Your task to perform on an android device: open sync settings in chrome Image 0: 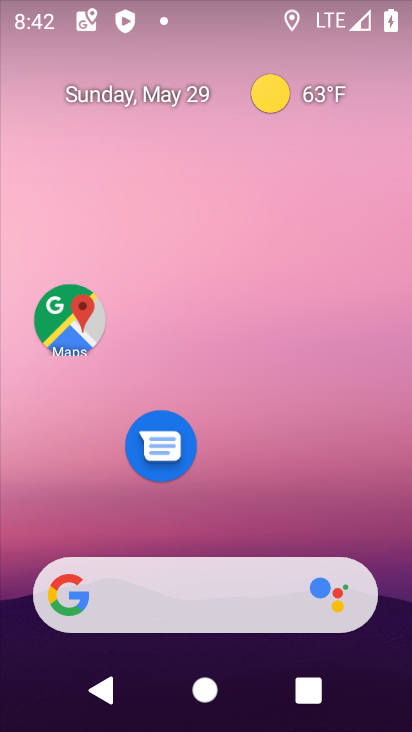
Step 0: drag from (224, 512) to (243, 178)
Your task to perform on an android device: open sync settings in chrome Image 1: 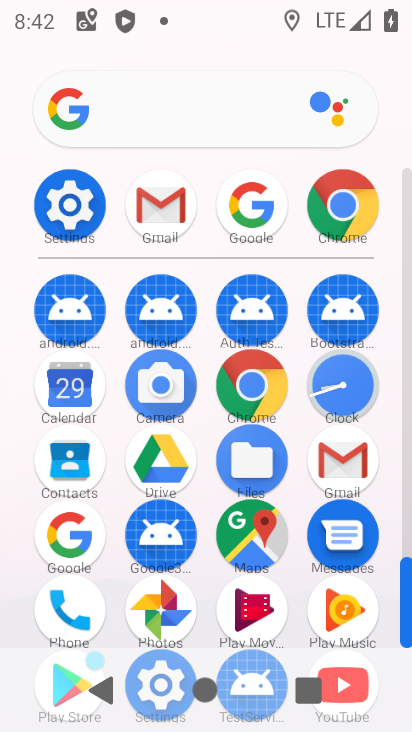
Step 1: click (368, 199)
Your task to perform on an android device: open sync settings in chrome Image 2: 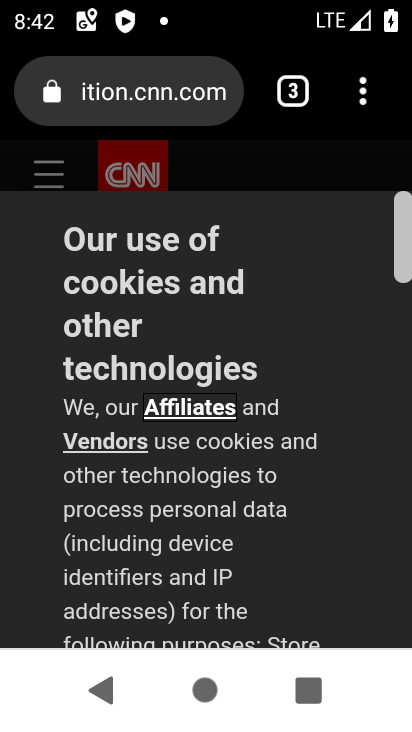
Step 2: click (360, 92)
Your task to perform on an android device: open sync settings in chrome Image 3: 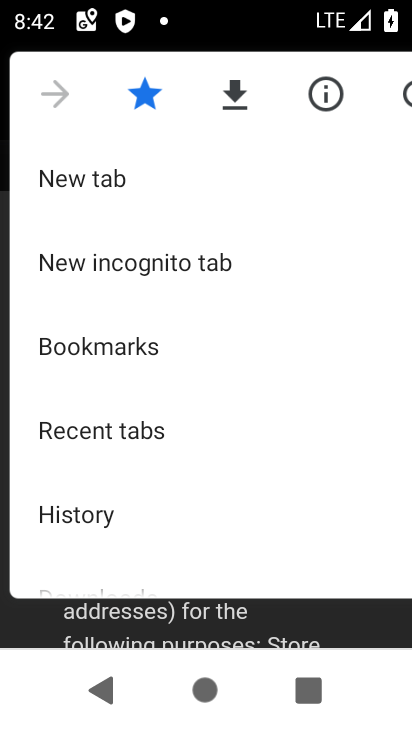
Step 3: drag from (162, 523) to (115, 316)
Your task to perform on an android device: open sync settings in chrome Image 4: 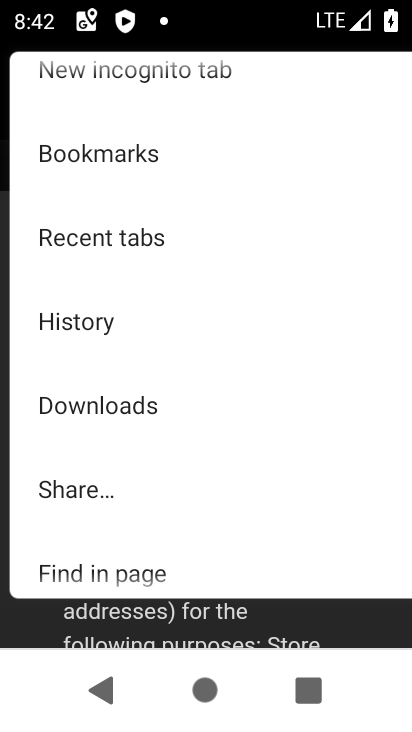
Step 4: drag from (122, 531) to (147, 284)
Your task to perform on an android device: open sync settings in chrome Image 5: 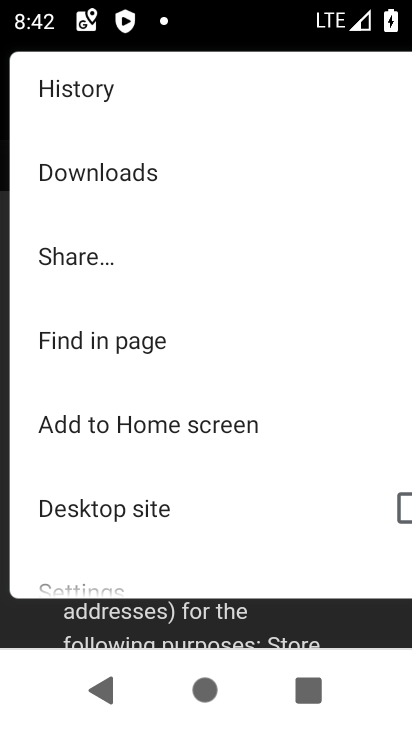
Step 5: drag from (131, 510) to (130, 315)
Your task to perform on an android device: open sync settings in chrome Image 6: 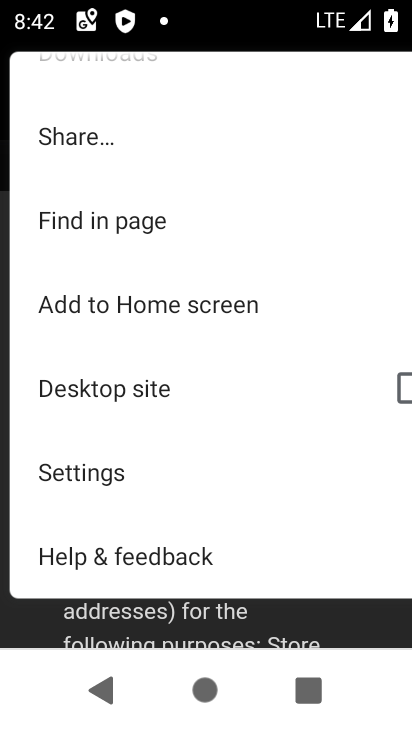
Step 6: click (107, 466)
Your task to perform on an android device: open sync settings in chrome Image 7: 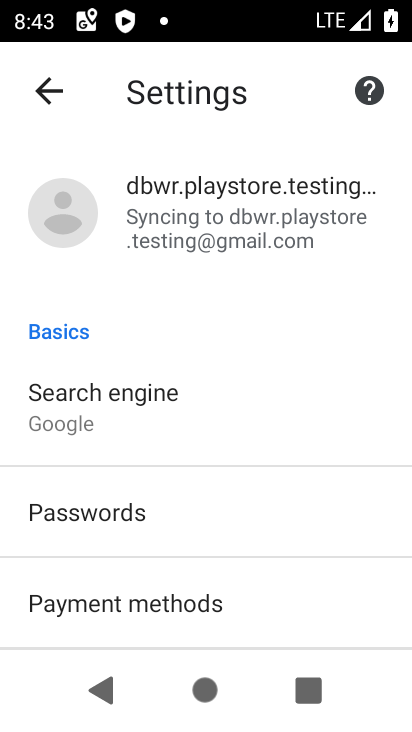
Step 7: click (153, 243)
Your task to perform on an android device: open sync settings in chrome Image 8: 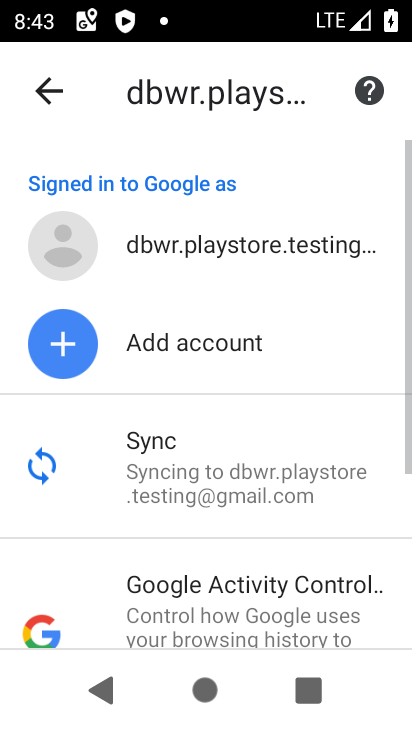
Step 8: click (179, 395)
Your task to perform on an android device: open sync settings in chrome Image 9: 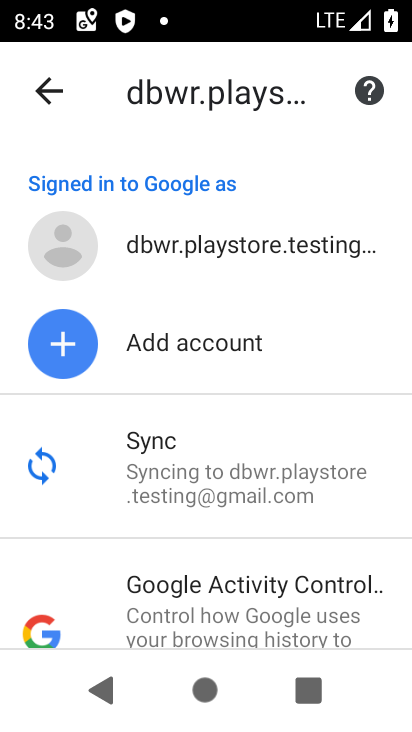
Step 9: task complete